Your task to perform on an android device: Open network settings Image 0: 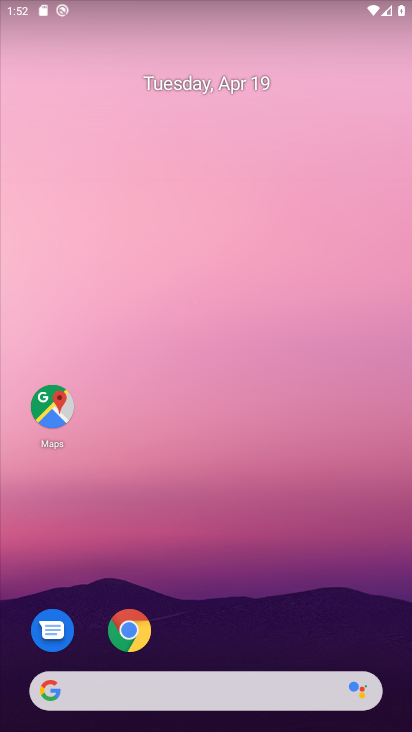
Step 0: drag from (238, 613) to (250, 41)
Your task to perform on an android device: Open network settings Image 1: 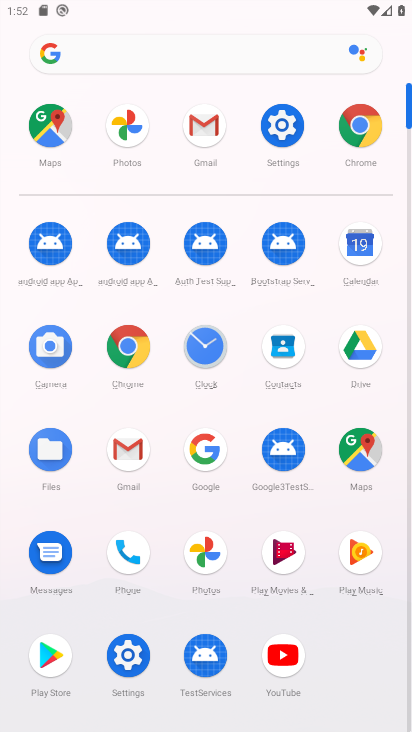
Step 1: click (278, 140)
Your task to perform on an android device: Open network settings Image 2: 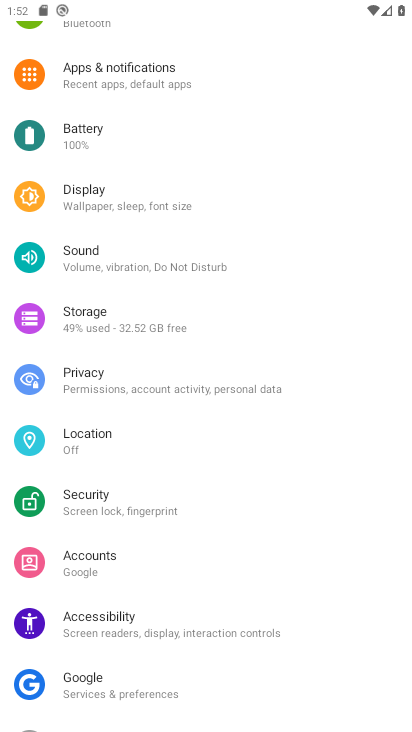
Step 2: drag from (174, 142) to (229, 290)
Your task to perform on an android device: Open network settings Image 3: 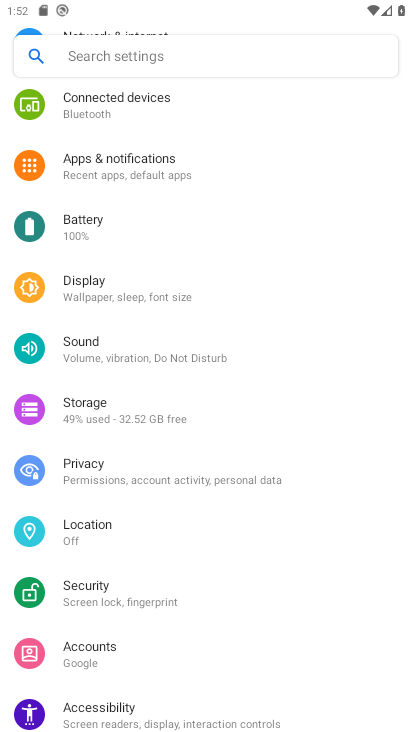
Step 3: drag from (166, 142) to (192, 273)
Your task to perform on an android device: Open network settings Image 4: 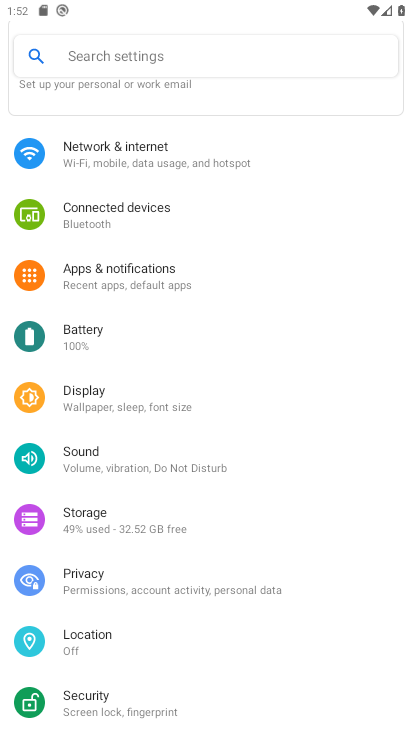
Step 4: click (217, 159)
Your task to perform on an android device: Open network settings Image 5: 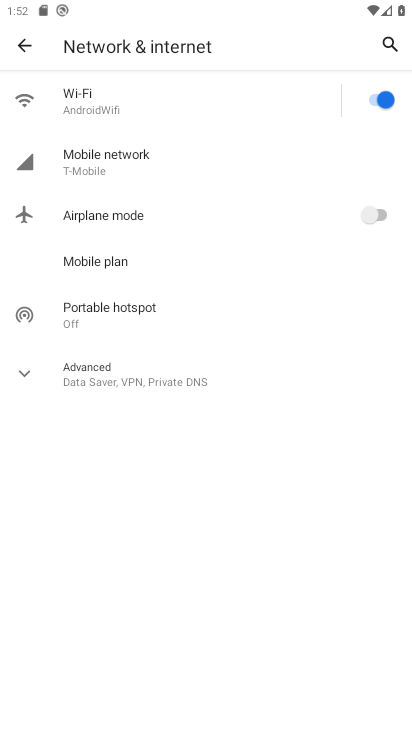
Step 5: click (102, 163)
Your task to perform on an android device: Open network settings Image 6: 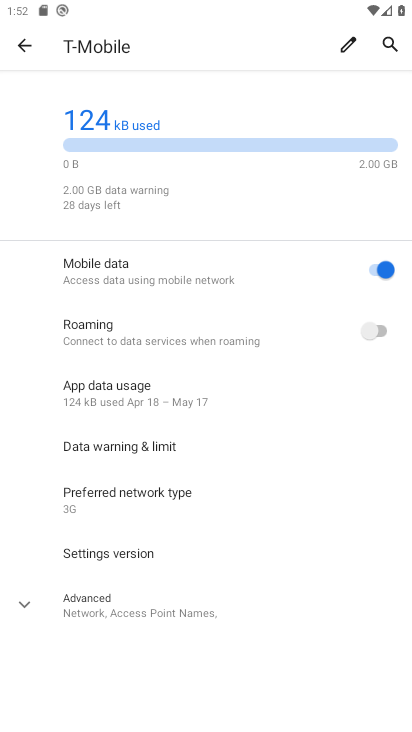
Step 6: task complete